Your task to perform on an android device: Go to internet settings Image 0: 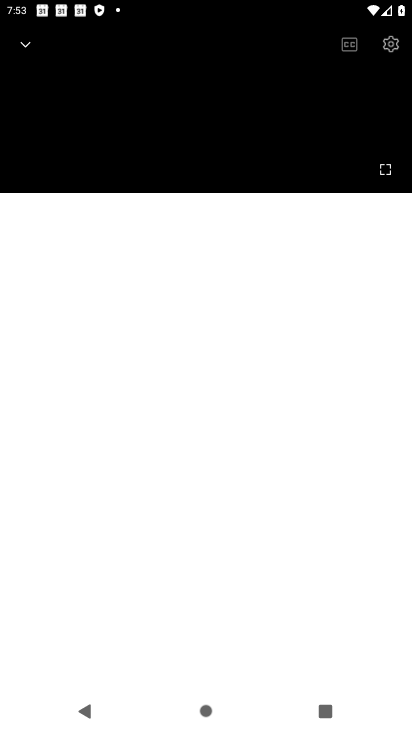
Step 0: click (133, 587)
Your task to perform on an android device: Go to internet settings Image 1: 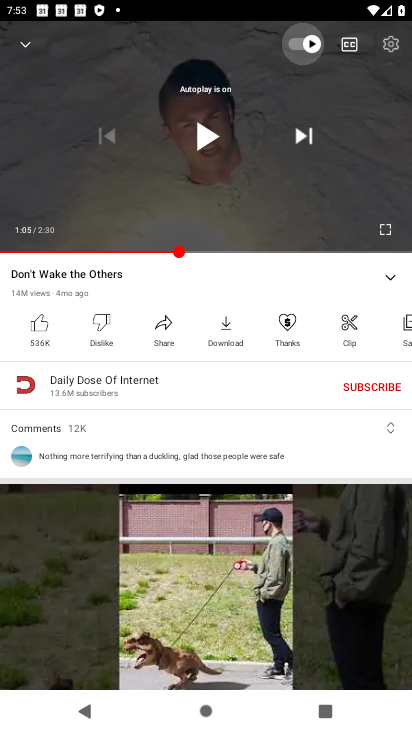
Step 1: drag from (198, 17) to (106, 518)
Your task to perform on an android device: Go to internet settings Image 2: 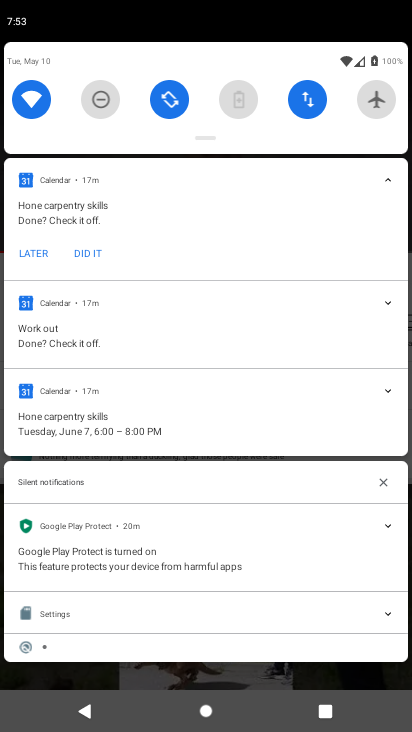
Step 2: drag from (205, 94) to (156, 577)
Your task to perform on an android device: Go to internet settings Image 3: 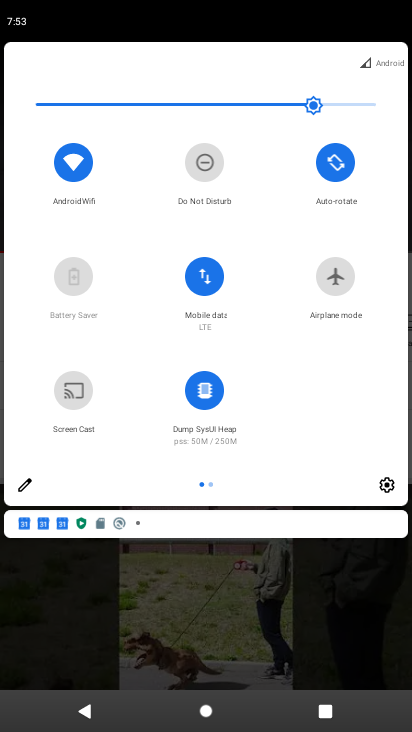
Step 3: click (392, 487)
Your task to perform on an android device: Go to internet settings Image 4: 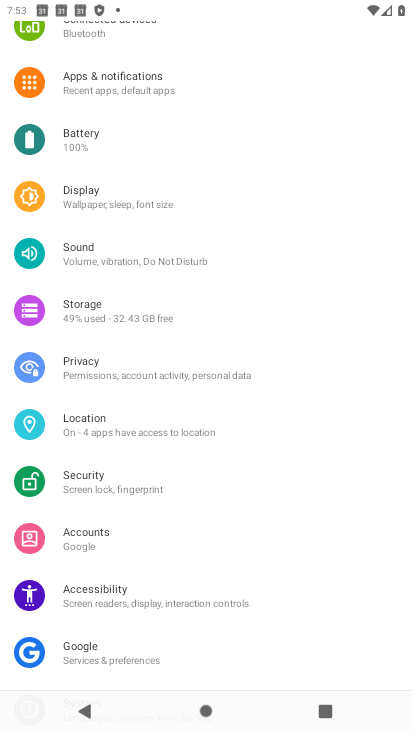
Step 4: drag from (158, 162) to (114, 561)
Your task to perform on an android device: Go to internet settings Image 5: 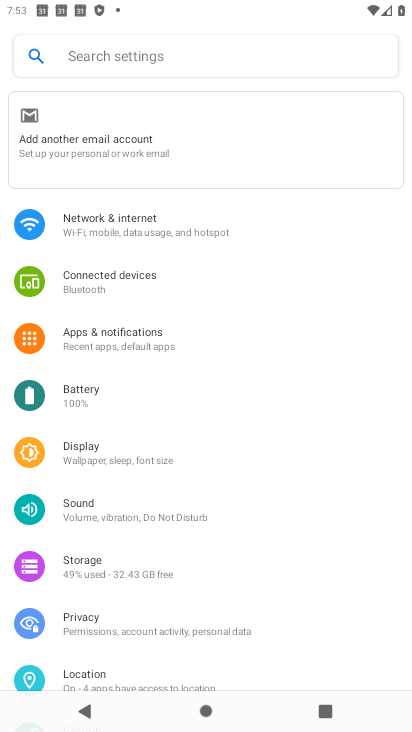
Step 5: click (194, 236)
Your task to perform on an android device: Go to internet settings Image 6: 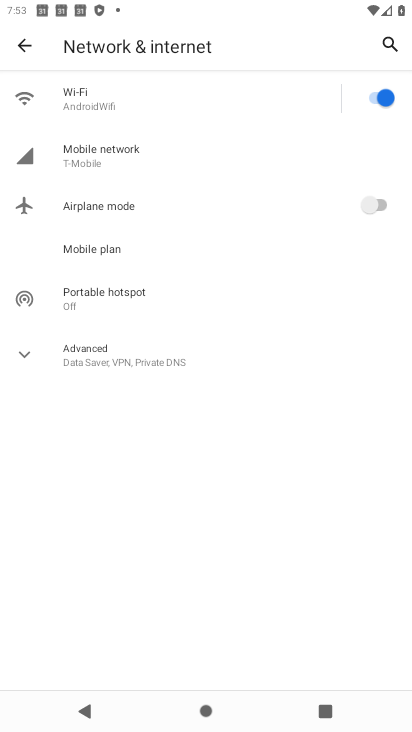
Step 6: click (149, 168)
Your task to perform on an android device: Go to internet settings Image 7: 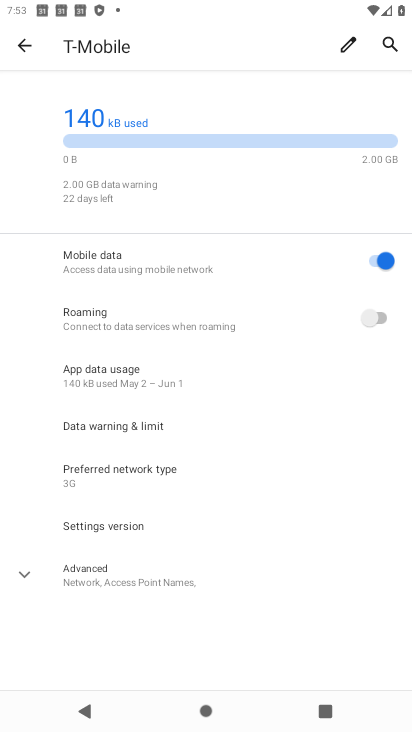
Step 7: task complete